Your task to perform on an android device: delete browsing data in the chrome app Image 0: 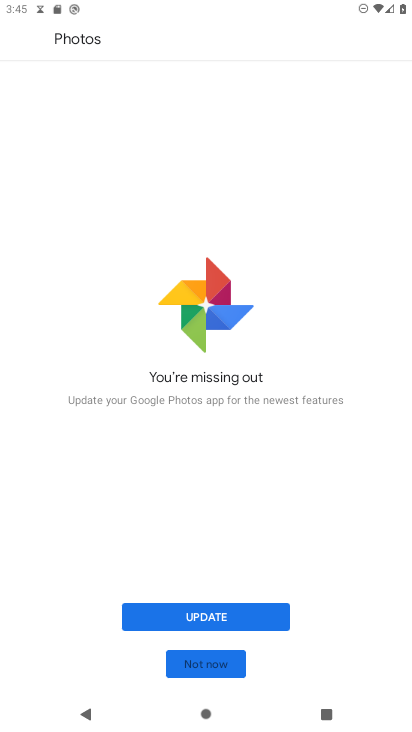
Step 0: press home button
Your task to perform on an android device: delete browsing data in the chrome app Image 1: 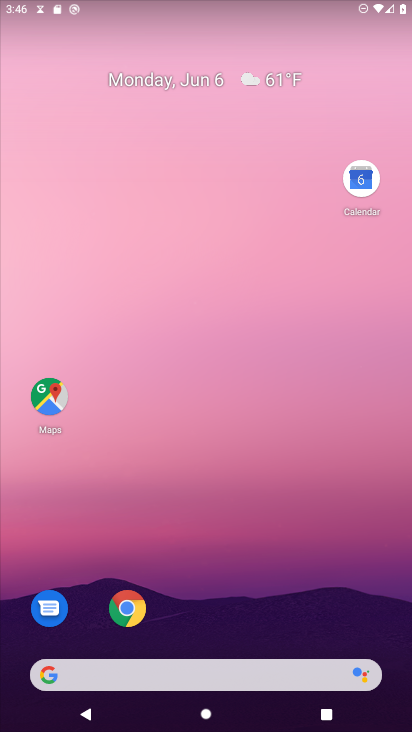
Step 1: click (134, 606)
Your task to perform on an android device: delete browsing data in the chrome app Image 2: 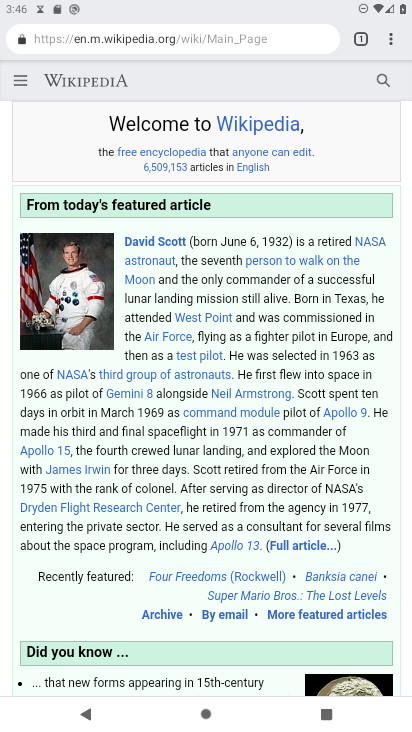
Step 2: click (406, 39)
Your task to perform on an android device: delete browsing data in the chrome app Image 3: 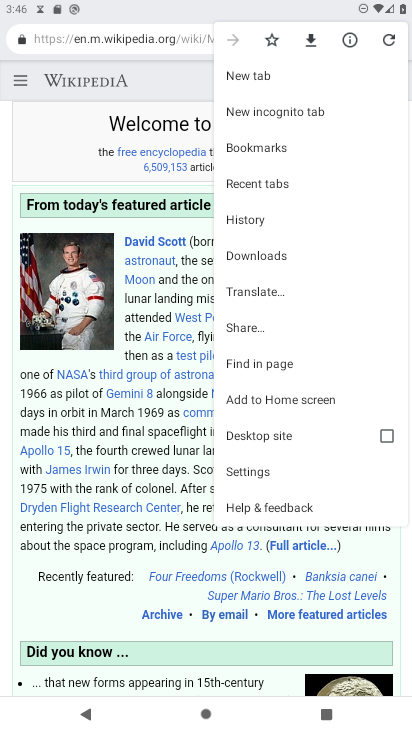
Step 3: click (261, 212)
Your task to perform on an android device: delete browsing data in the chrome app Image 4: 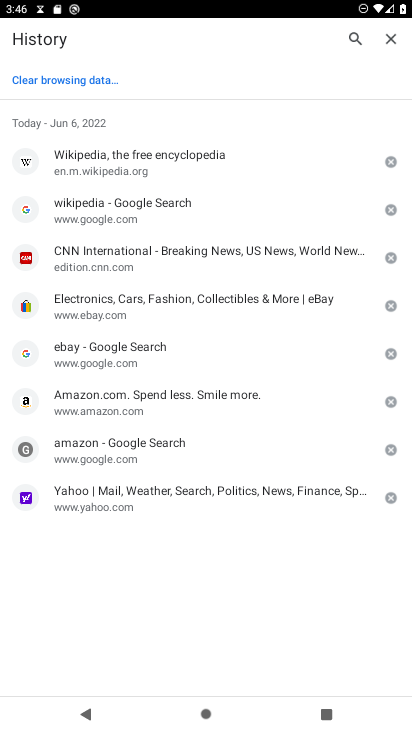
Step 4: click (61, 79)
Your task to perform on an android device: delete browsing data in the chrome app Image 5: 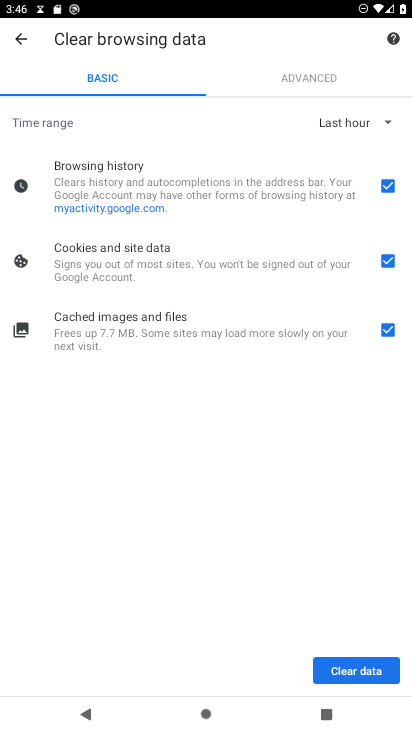
Step 5: click (382, 671)
Your task to perform on an android device: delete browsing data in the chrome app Image 6: 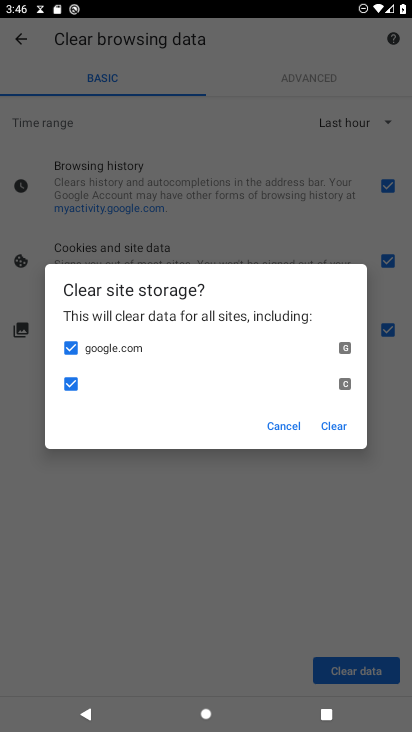
Step 6: click (322, 429)
Your task to perform on an android device: delete browsing data in the chrome app Image 7: 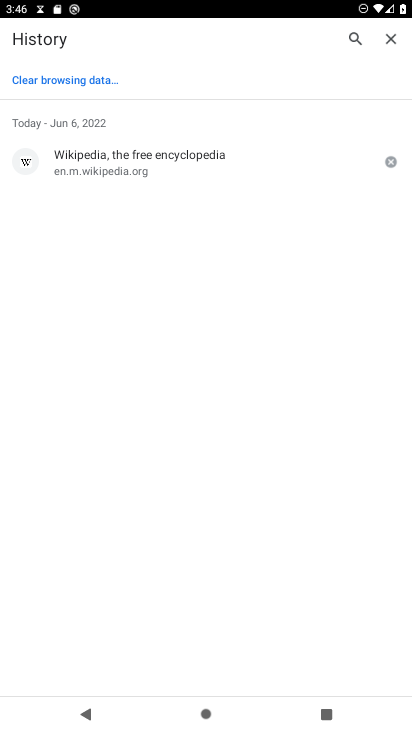
Step 7: task complete